Your task to perform on an android device: Go to Google Image 0: 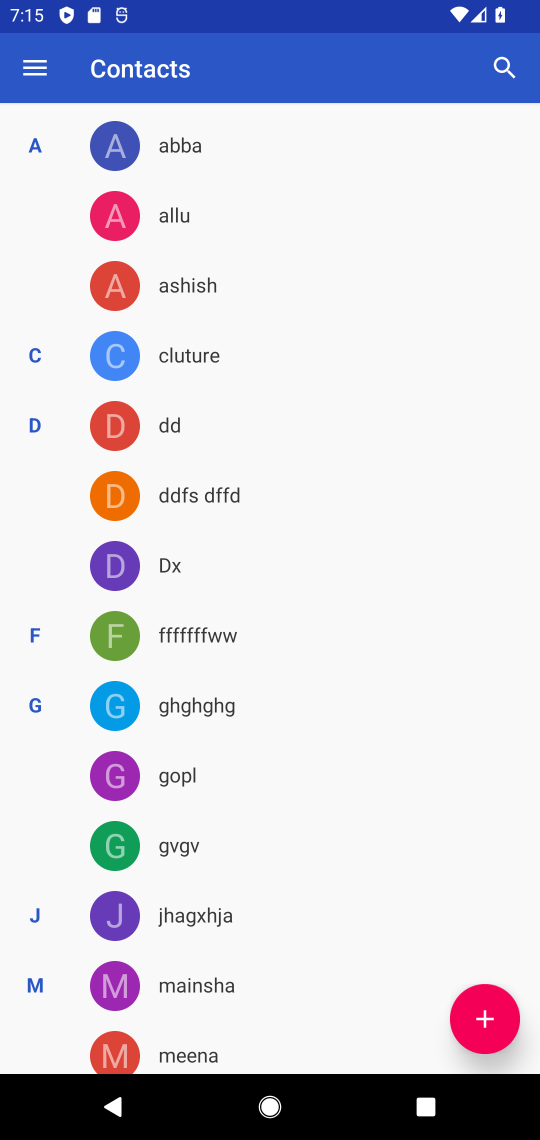
Step 0: press home button
Your task to perform on an android device: Go to Google Image 1: 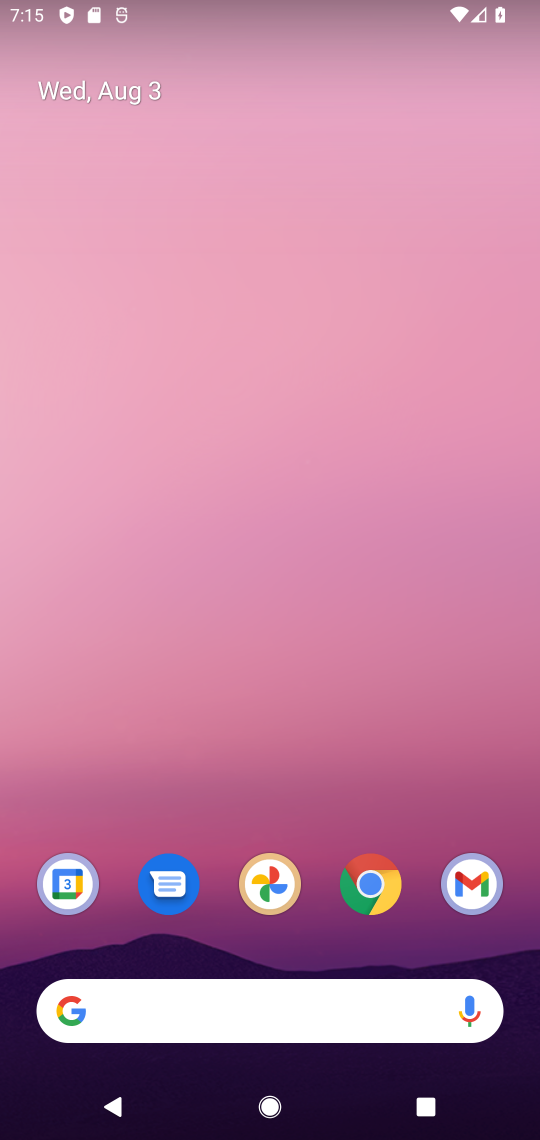
Step 1: click (283, 1015)
Your task to perform on an android device: Go to Google Image 2: 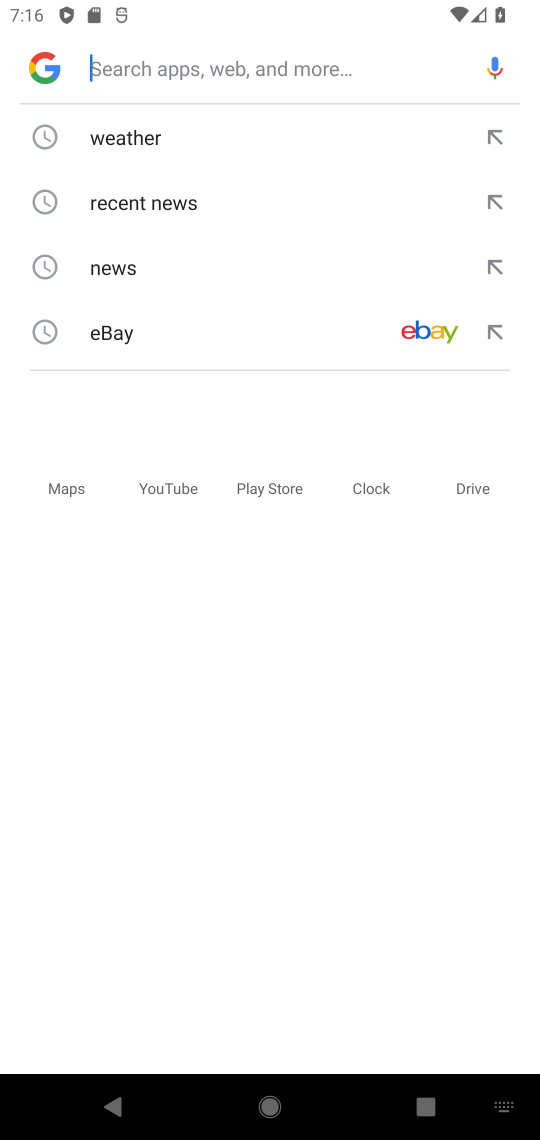
Step 2: task complete